Your task to perform on an android device: Show me the alarms in the clock app Image 0: 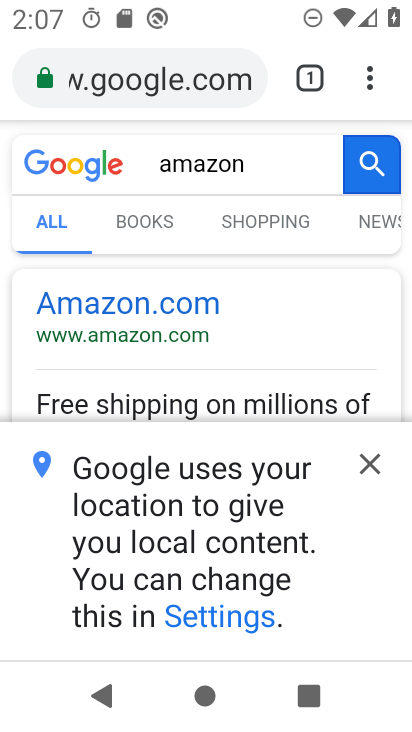
Step 0: press home button
Your task to perform on an android device: Show me the alarms in the clock app Image 1: 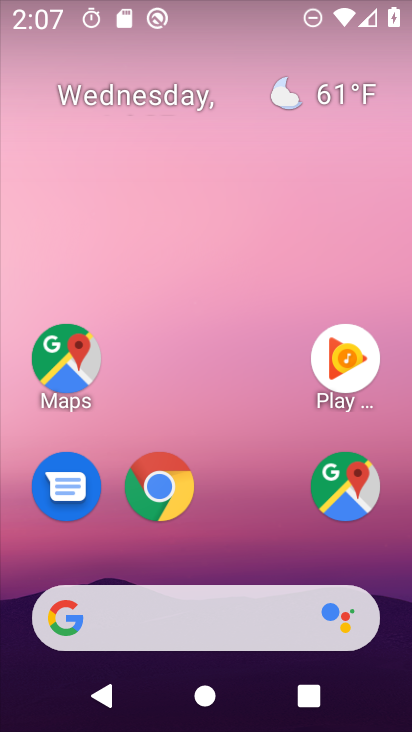
Step 1: drag from (262, 532) to (248, 11)
Your task to perform on an android device: Show me the alarms in the clock app Image 2: 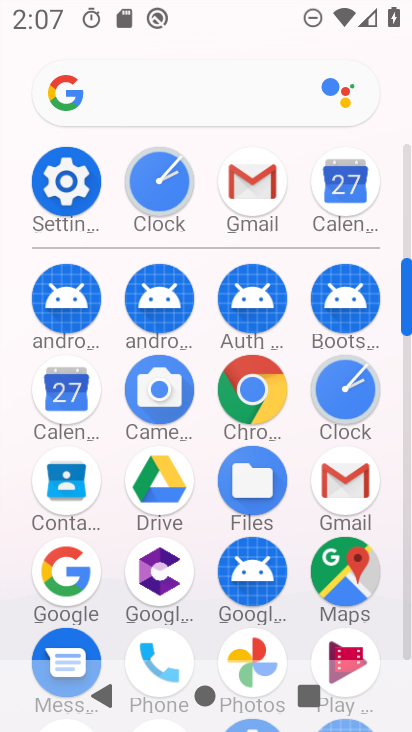
Step 2: click (354, 376)
Your task to perform on an android device: Show me the alarms in the clock app Image 3: 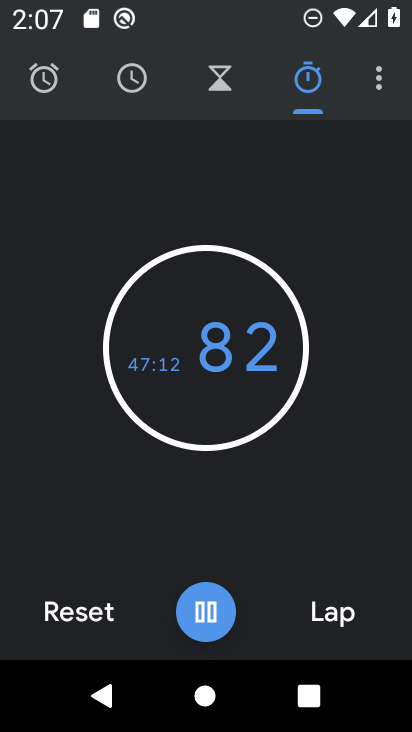
Step 3: click (44, 89)
Your task to perform on an android device: Show me the alarms in the clock app Image 4: 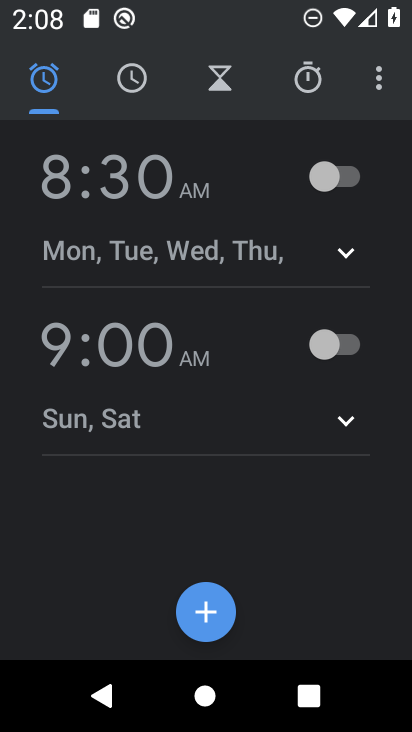
Step 4: task complete